Your task to perform on an android device: Open the phone app and click the voicemail tab. Image 0: 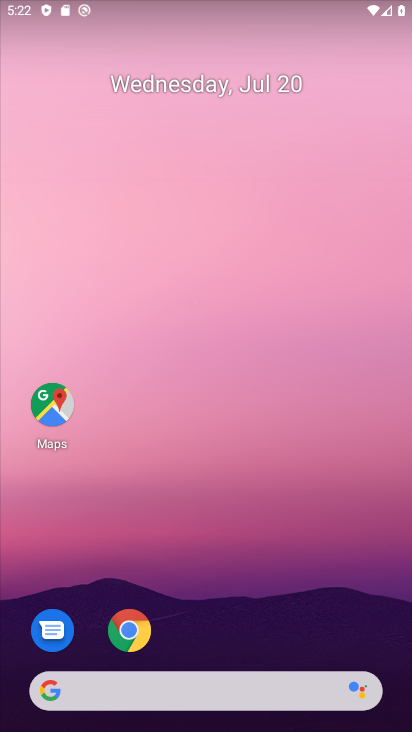
Step 0: drag from (276, 697) to (328, 62)
Your task to perform on an android device: Open the phone app and click the voicemail tab. Image 1: 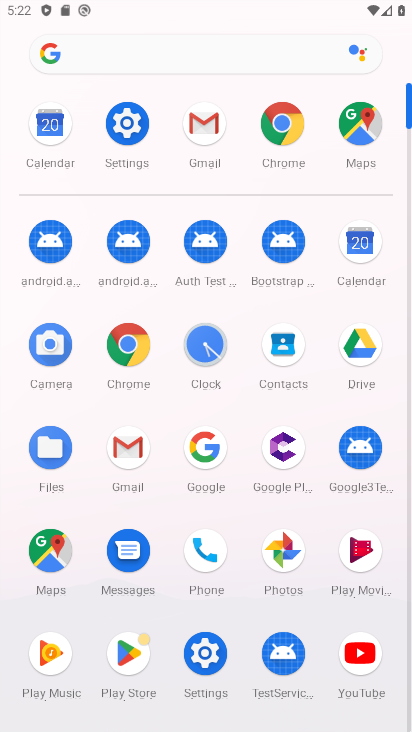
Step 1: click (206, 557)
Your task to perform on an android device: Open the phone app and click the voicemail tab. Image 2: 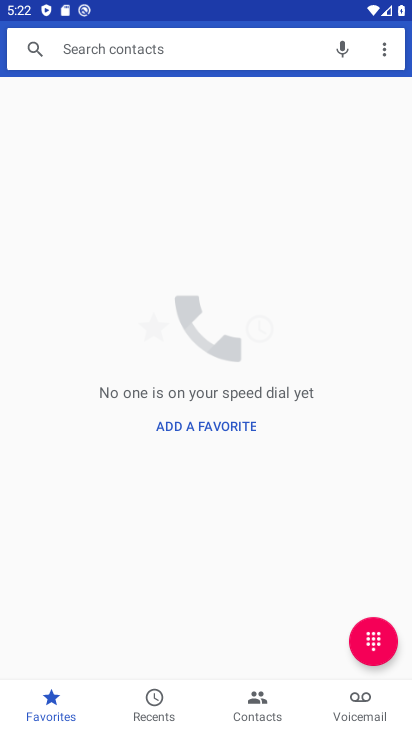
Step 2: click (347, 702)
Your task to perform on an android device: Open the phone app and click the voicemail tab. Image 3: 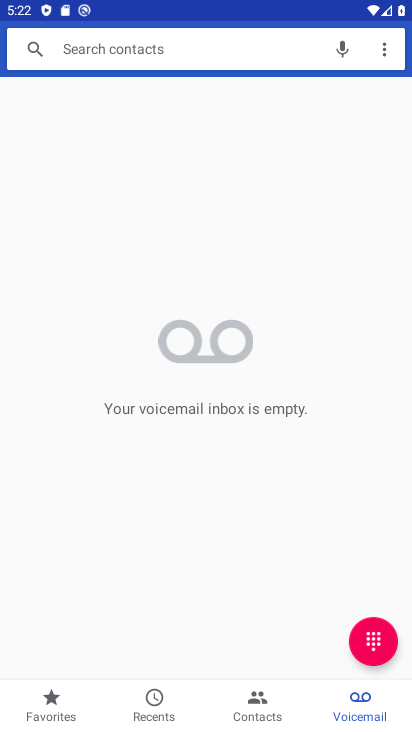
Step 3: task complete